Your task to perform on an android device: open chrome privacy settings Image 0: 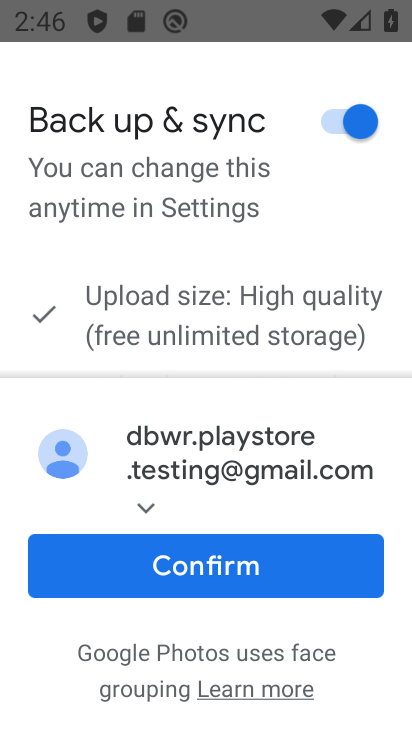
Step 0: press home button
Your task to perform on an android device: open chrome privacy settings Image 1: 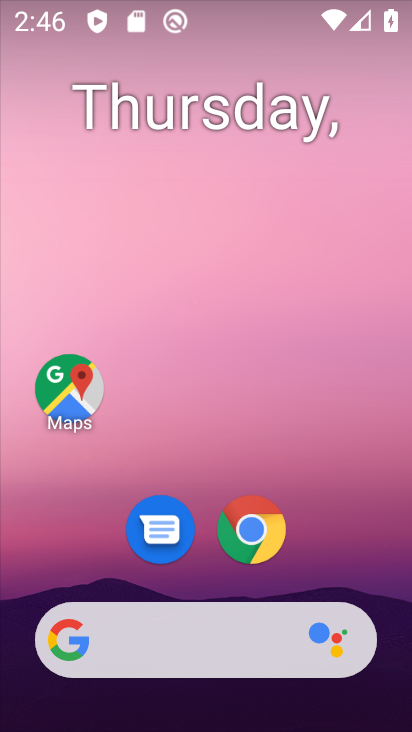
Step 1: click (252, 529)
Your task to perform on an android device: open chrome privacy settings Image 2: 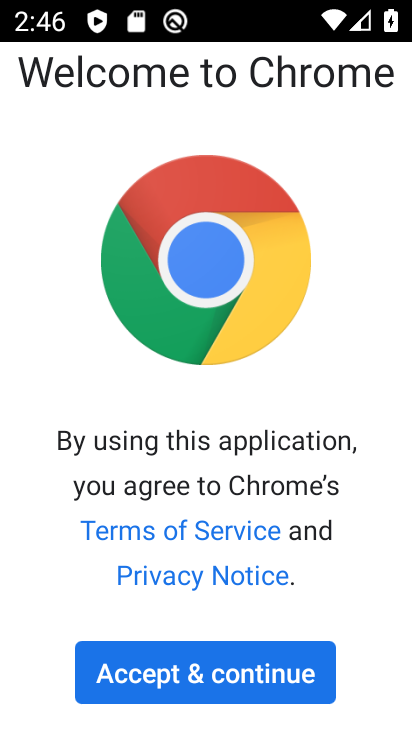
Step 2: click (192, 680)
Your task to perform on an android device: open chrome privacy settings Image 3: 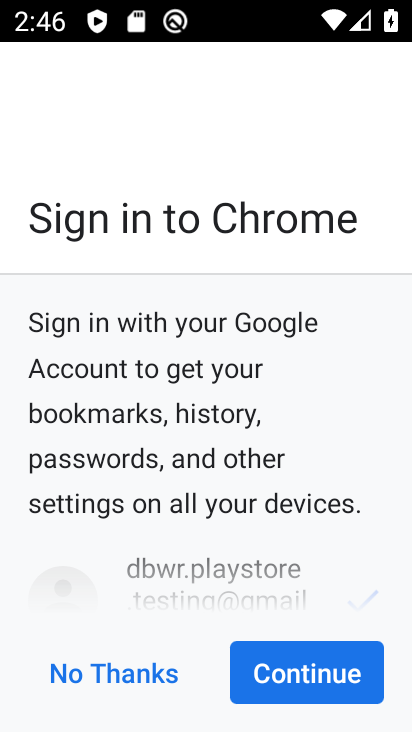
Step 3: click (300, 665)
Your task to perform on an android device: open chrome privacy settings Image 4: 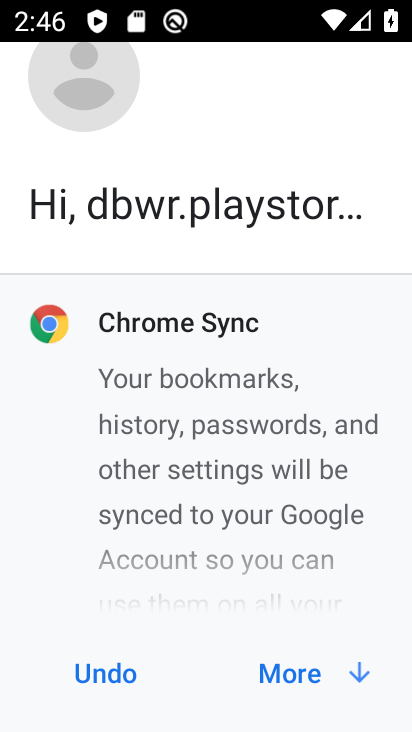
Step 4: click (296, 673)
Your task to perform on an android device: open chrome privacy settings Image 5: 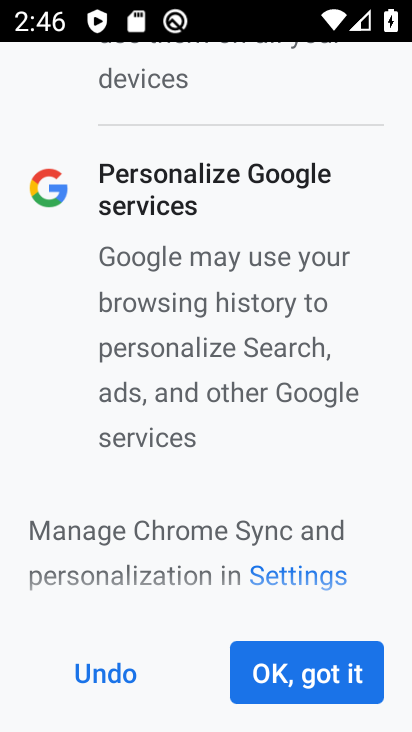
Step 5: click (296, 673)
Your task to perform on an android device: open chrome privacy settings Image 6: 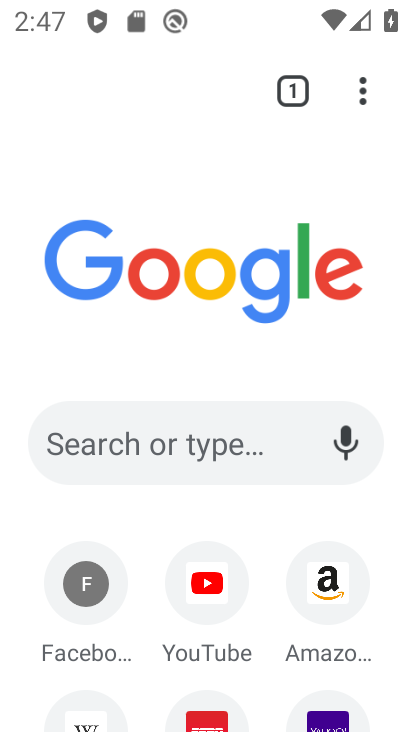
Step 6: click (362, 92)
Your task to perform on an android device: open chrome privacy settings Image 7: 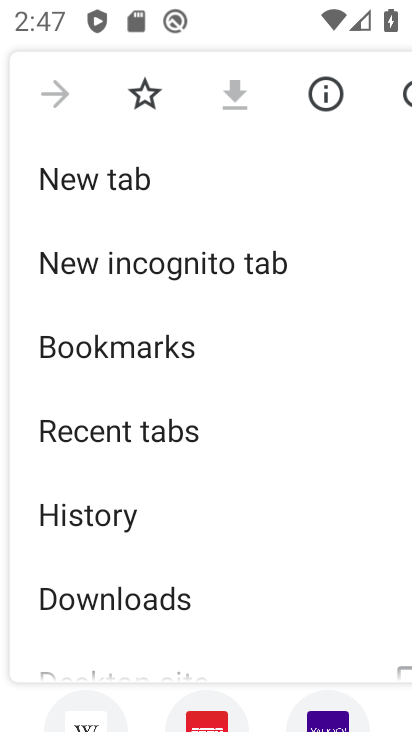
Step 7: drag from (163, 493) to (241, 333)
Your task to perform on an android device: open chrome privacy settings Image 8: 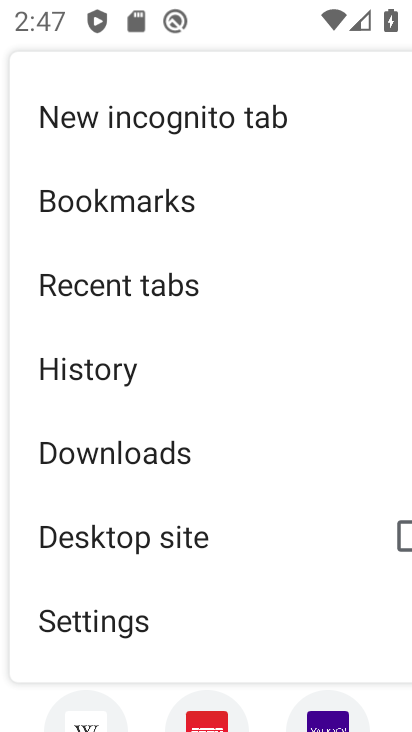
Step 8: drag from (169, 513) to (225, 428)
Your task to perform on an android device: open chrome privacy settings Image 9: 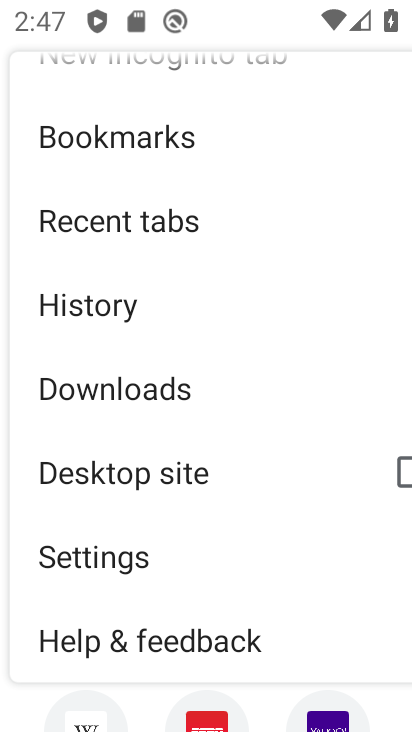
Step 9: click (113, 561)
Your task to perform on an android device: open chrome privacy settings Image 10: 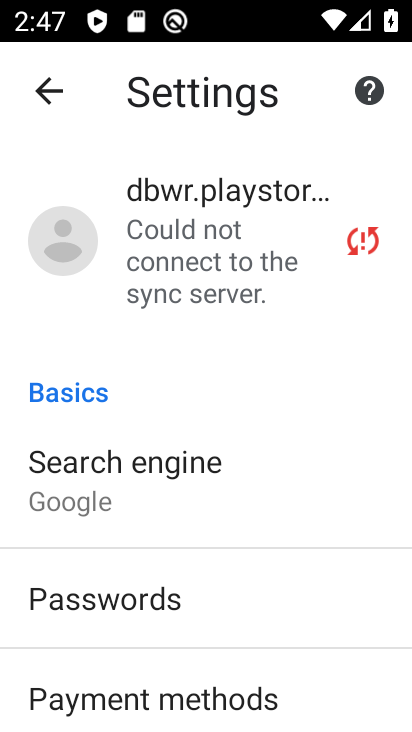
Step 10: drag from (208, 597) to (250, 394)
Your task to perform on an android device: open chrome privacy settings Image 11: 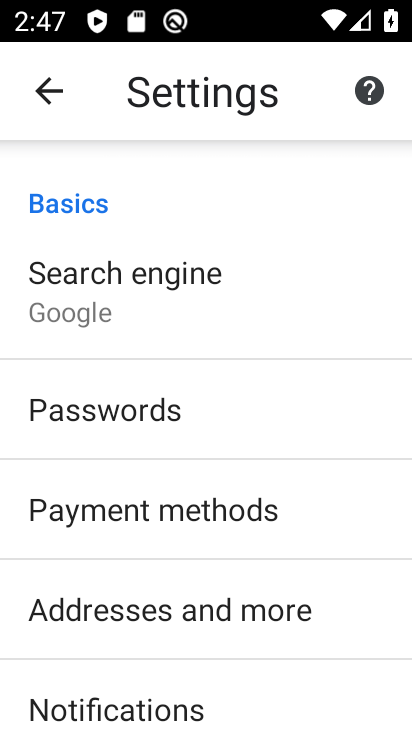
Step 11: drag from (191, 579) to (279, 428)
Your task to perform on an android device: open chrome privacy settings Image 12: 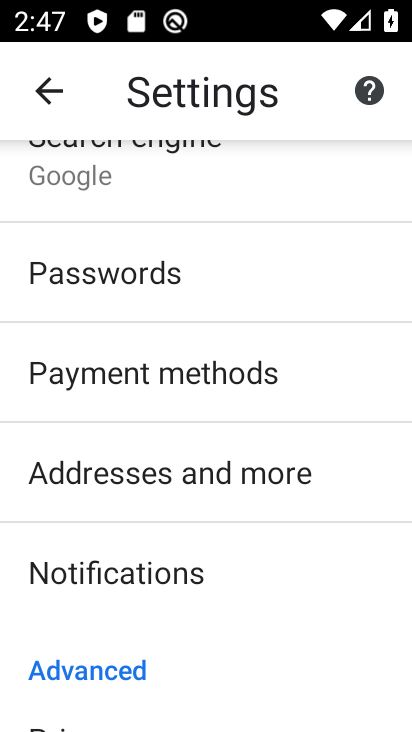
Step 12: drag from (172, 616) to (260, 477)
Your task to perform on an android device: open chrome privacy settings Image 13: 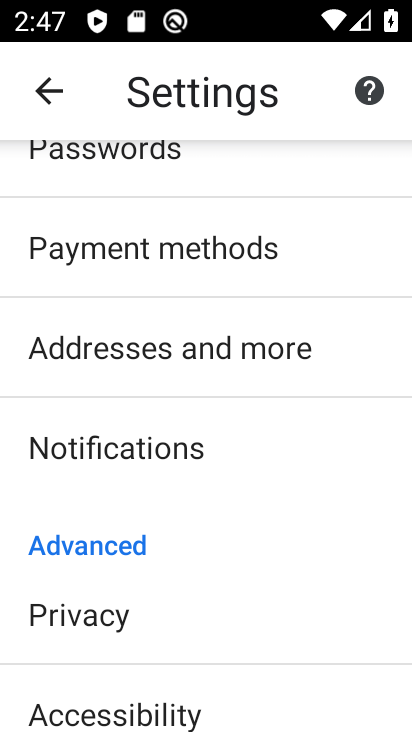
Step 13: click (100, 627)
Your task to perform on an android device: open chrome privacy settings Image 14: 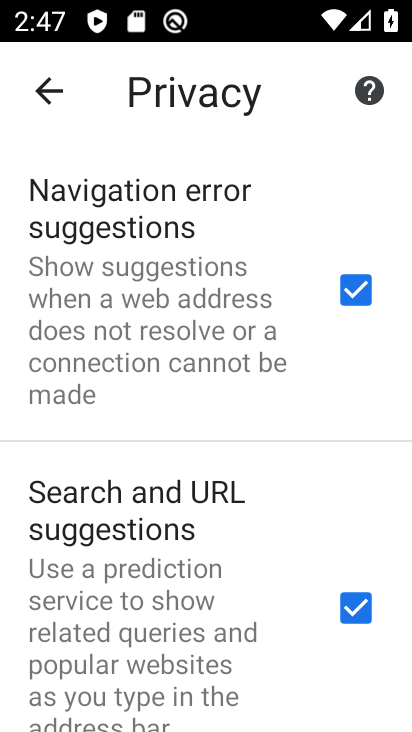
Step 14: task complete